Your task to perform on an android device: Open ESPN.com Image 0: 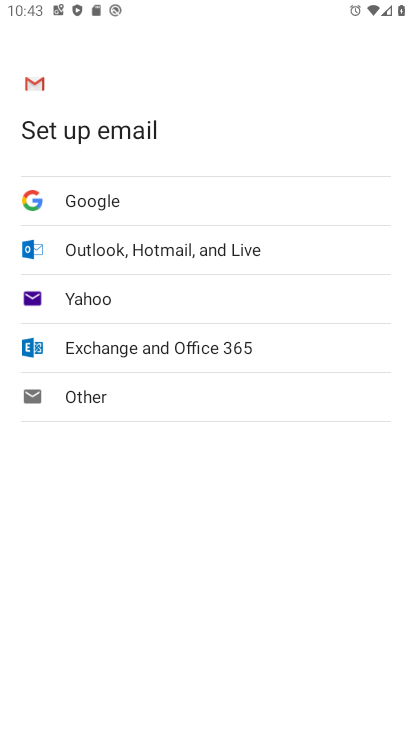
Step 0: press home button
Your task to perform on an android device: Open ESPN.com Image 1: 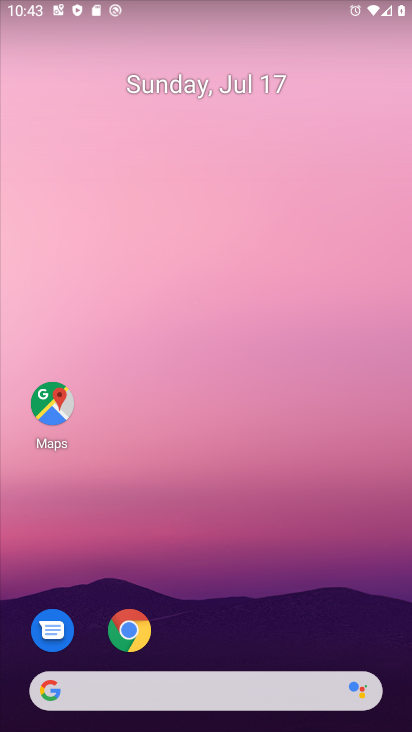
Step 1: drag from (366, 582) to (371, 117)
Your task to perform on an android device: Open ESPN.com Image 2: 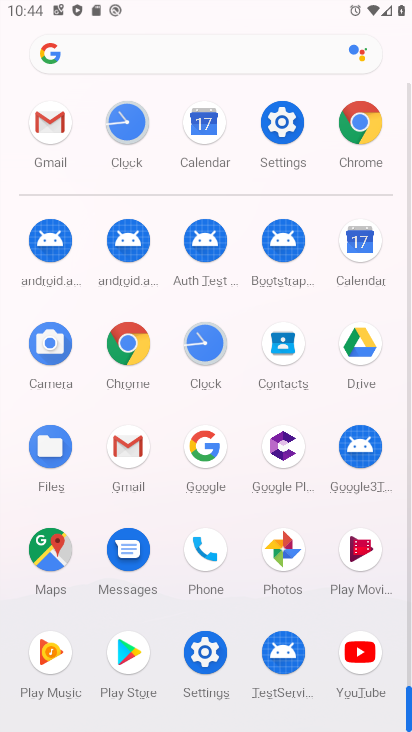
Step 2: click (135, 349)
Your task to perform on an android device: Open ESPN.com Image 3: 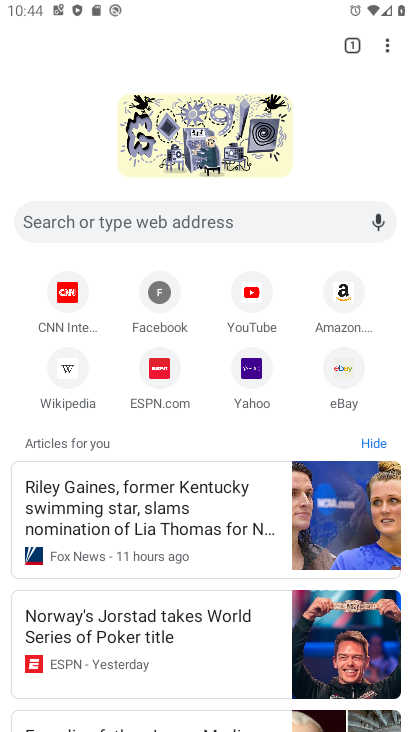
Step 3: click (250, 220)
Your task to perform on an android device: Open ESPN.com Image 4: 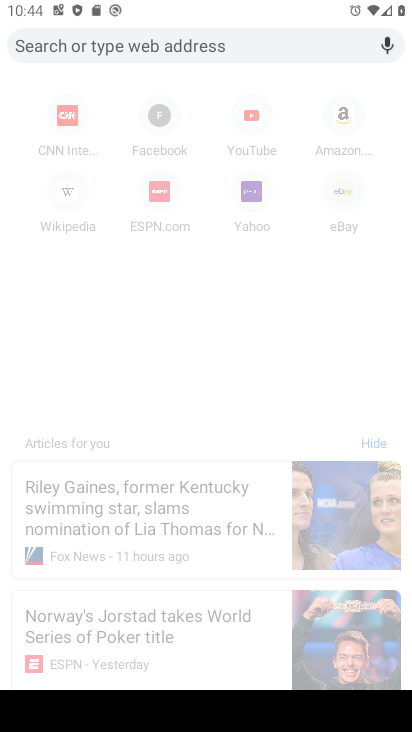
Step 4: type "espn.com"
Your task to perform on an android device: Open ESPN.com Image 5: 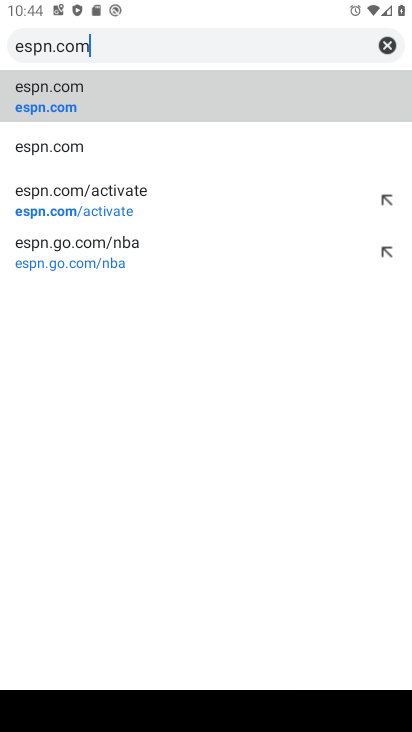
Step 5: click (270, 93)
Your task to perform on an android device: Open ESPN.com Image 6: 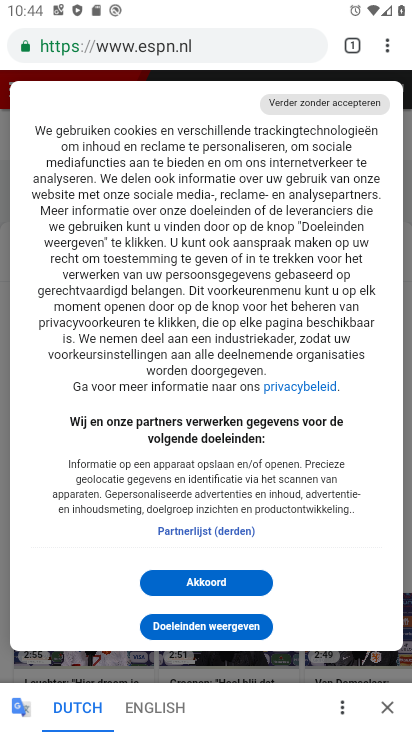
Step 6: task complete